Your task to perform on an android device: find photos in the google photos app Image 0: 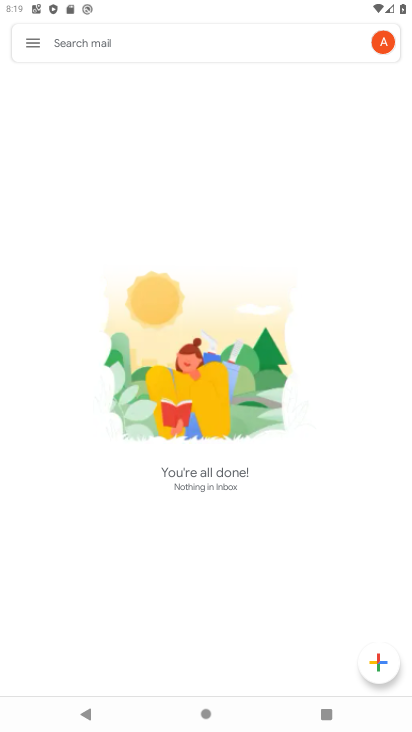
Step 0: click (49, 45)
Your task to perform on an android device: find photos in the google photos app Image 1: 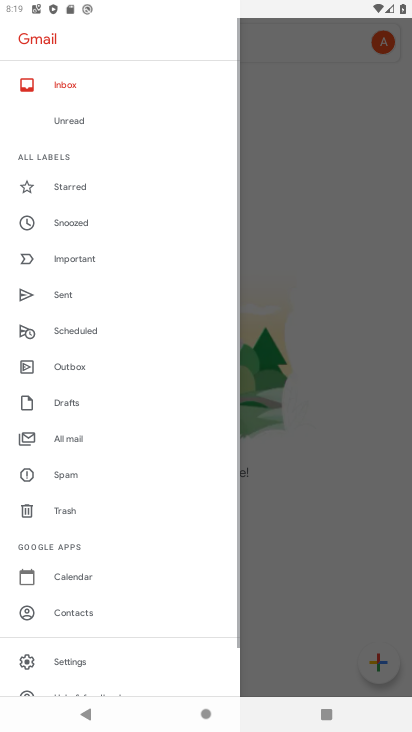
Step 1: click (65, 79)
Your task to perform on an android device: find photos in the google photos app Image 2: 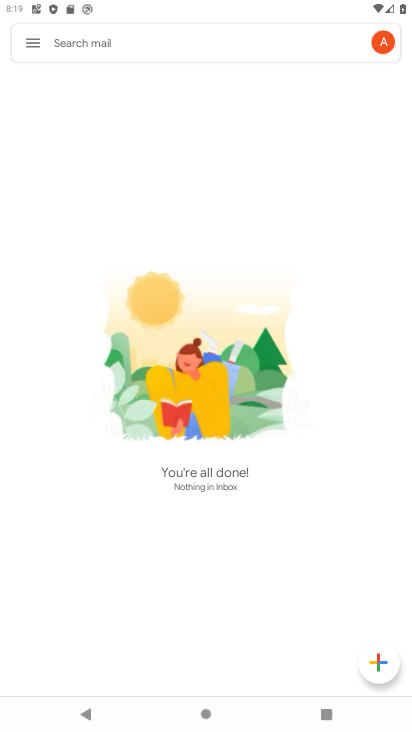
Step 2: task complete